Your task to perform on an android device: Open Amazon Image 0: 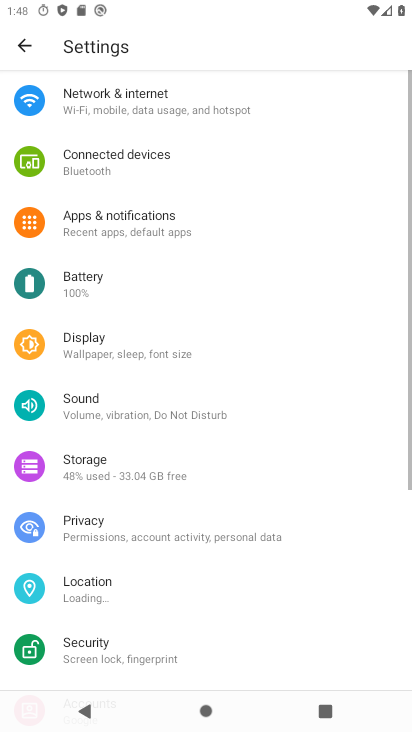
Step 0: press home button
Your task to perform on an android device: Open Amazon Image 1: 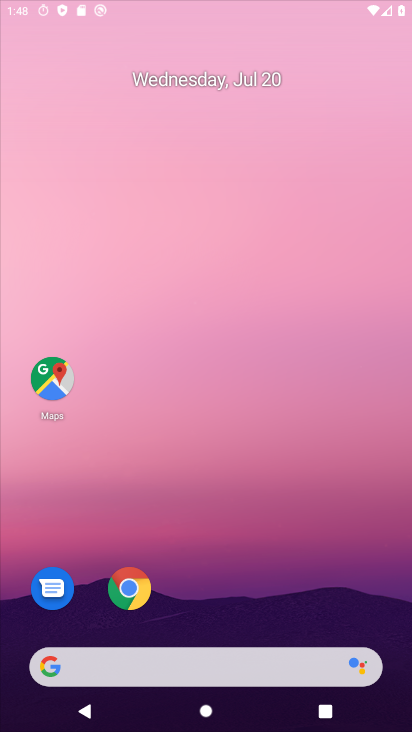
Step 1: drag from (221, 592) to (304, 1)
Your task to perform on an android device: Open Amazon Image 2: 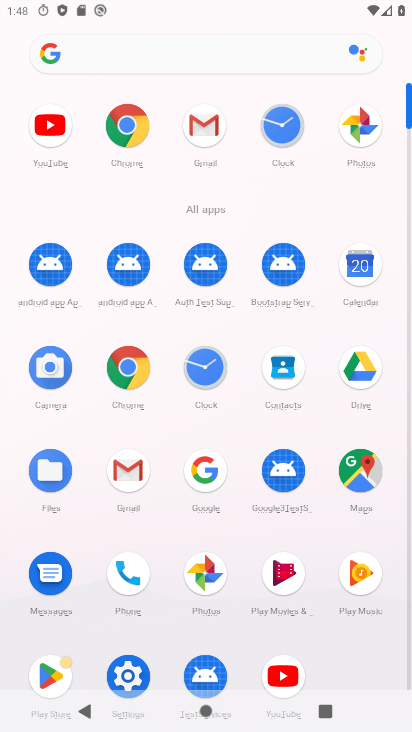
Step 2: click (124, 363)
Your task to perform on an android device: Open Amazon Image 3: 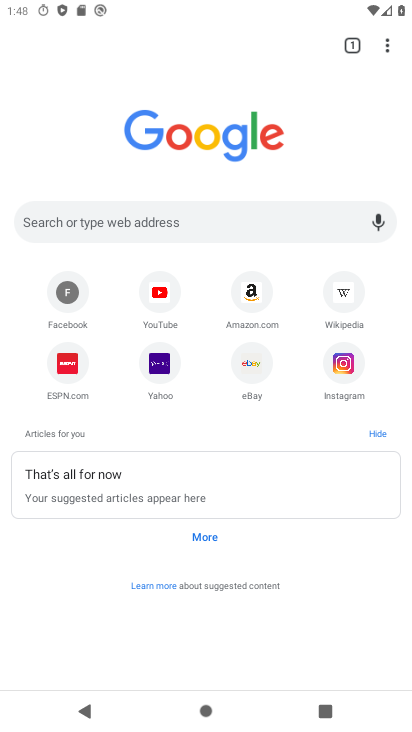
Step 3: click (258, 288)
Your task to perform on an android device: Open Amazon Image 4: 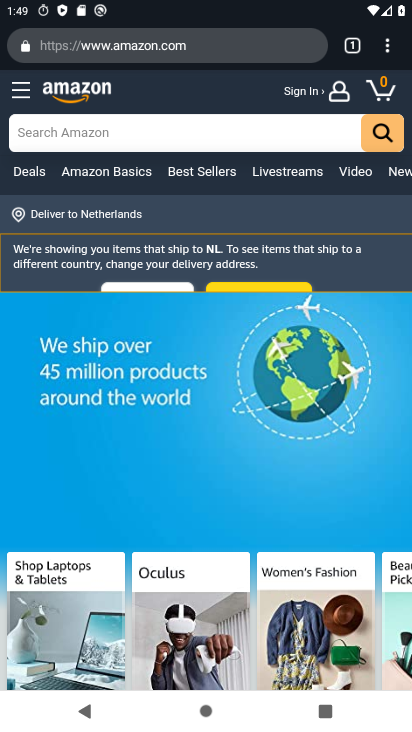
Step 4: task complete